Your task to perform on an android device: change the upload size in google photos Image 0: 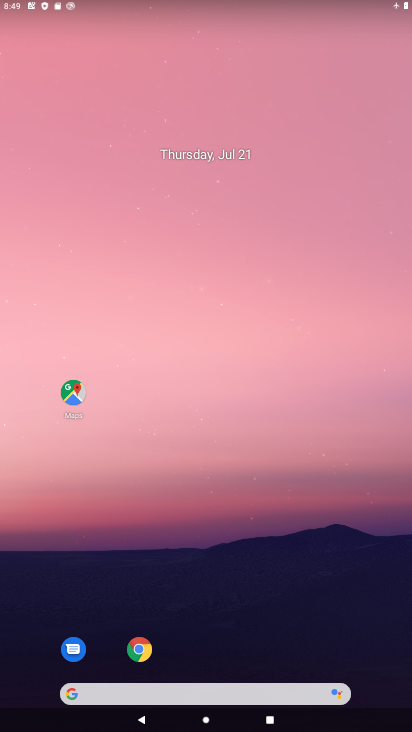
Step 0: drag from (260, 654) to (277, 94)
Your task to perform on an android device: change the upload size in google photos Image 1: 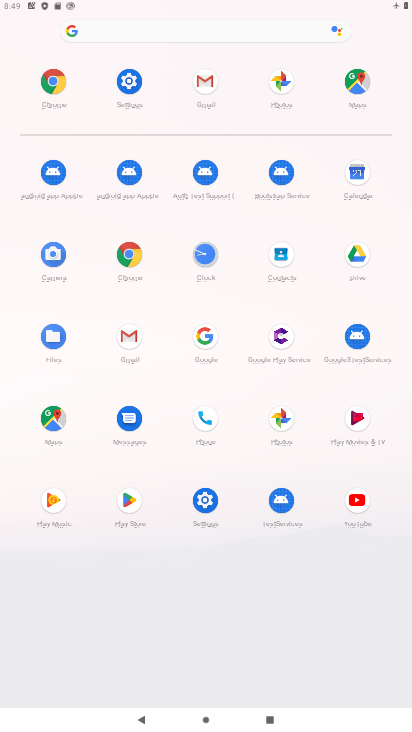
Step 1: click (277, 436)
Your task to perform on an android device: change the upload size in google photos Image 2: 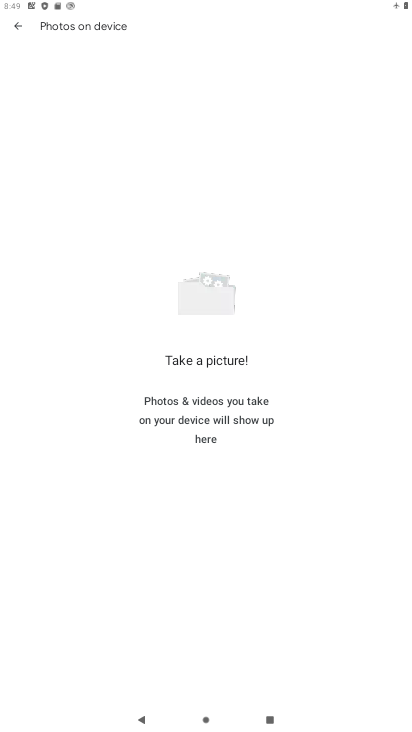
Step 2: click (21, 22)
Your task to perform on an android device: change the upload size in google photos Image 3: 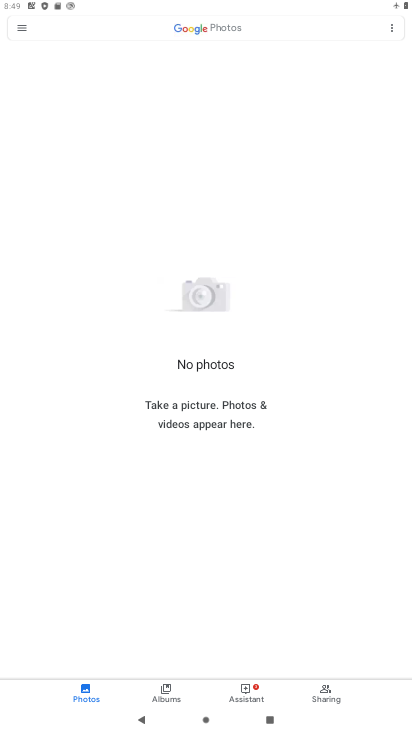
Step 3: click (20, 22)
Your task to perform on an android device: change the upload size in google photos Image 4: 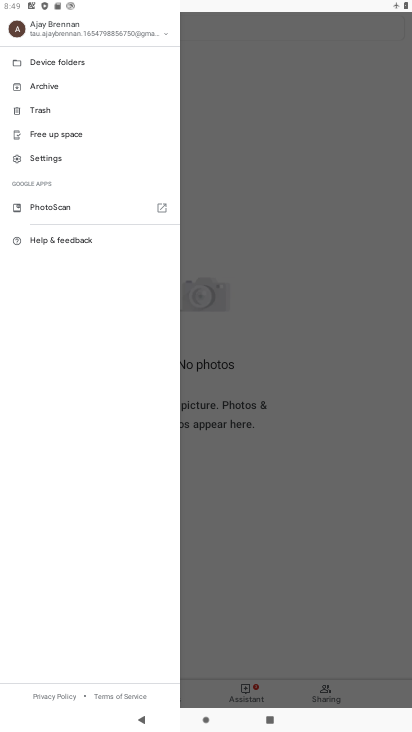
Step 4: click (56, 159)
Your task to perform on an android device: change the upload size in google photos Image 5: 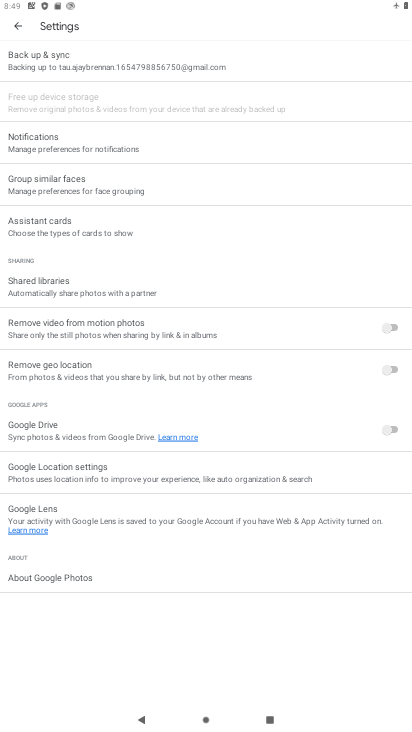
Step 5: click (99, 50)
Your task to perform on an android device: change the upload size in google photos Image 6: 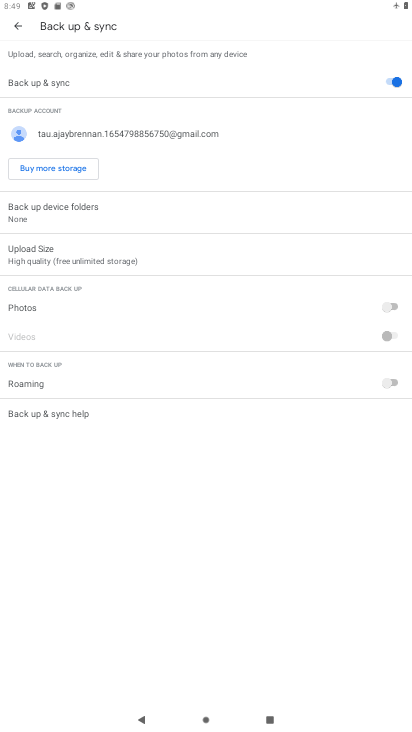
Step 6: click (67, 250)
Your task to perform on an android device: change the upload size in google photos Image 7: 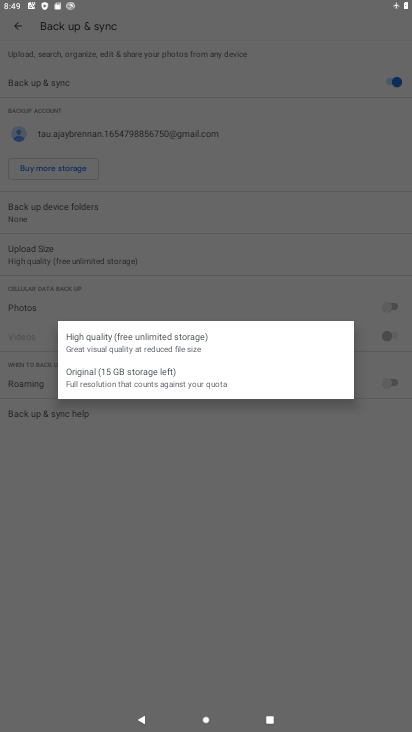
Step 7: click (124, 378)
Your task to perform on an android device: change the upload size in google photos Image 8: 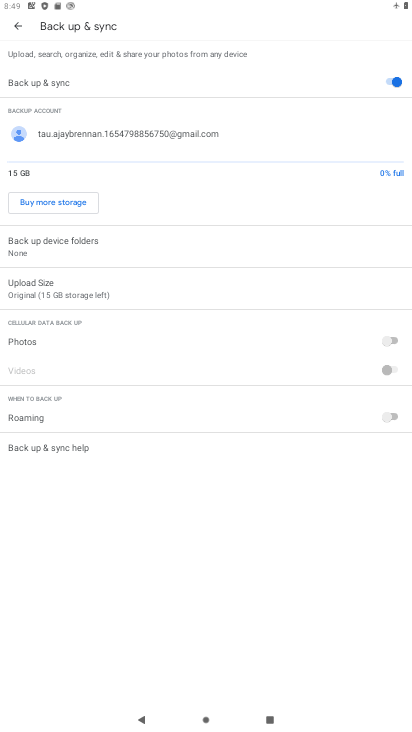
Step 8: task complete